Your task to perform on an android device: open a bookmark in the chrome app Image 0: 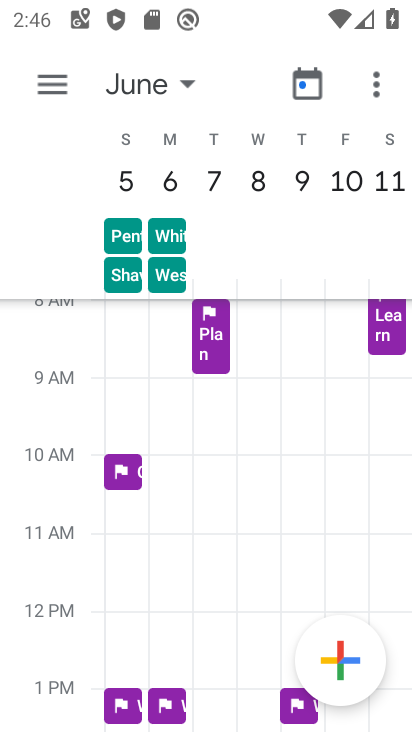
Step 0: press back button
Your task to perform on an android device: open a bookmark in the chrome app Image 1: 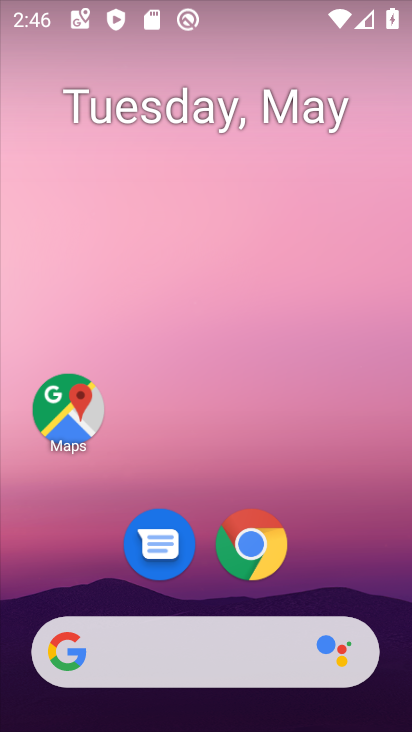
Step 1: click (251, 545)
Your task to perform on an android device: open a bookmark in the chrome app Image 2: 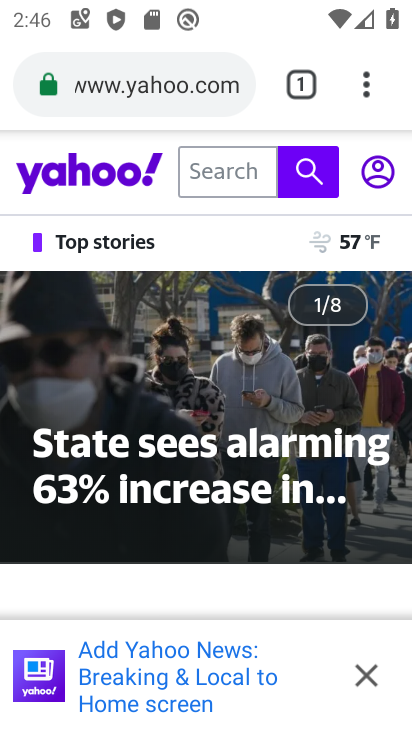
Step 2: click (366, 87)
Your task to perform on an android device: open a bookmark in the chrome app Image 3: 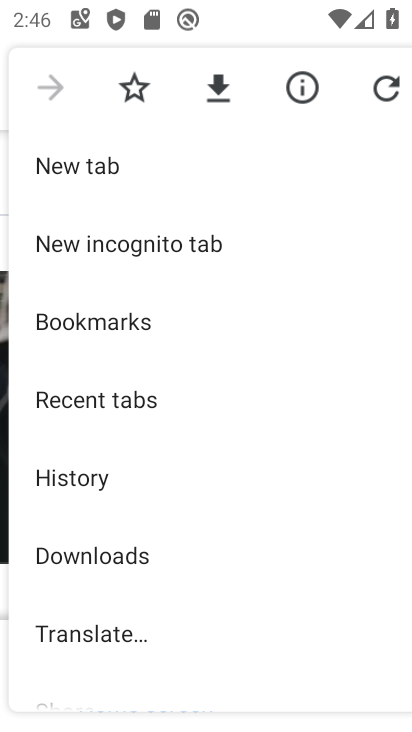
Step 3: click (140, 325)
Your task to perform on an android device: open a bookmark in the chrome app Image 4: 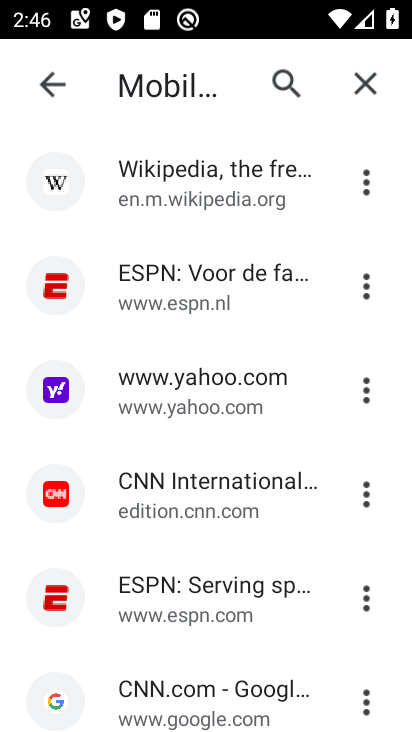
Step 4: task complete